Your task to perform on an android device: Open calendar and show me the first week of next month Image 0: 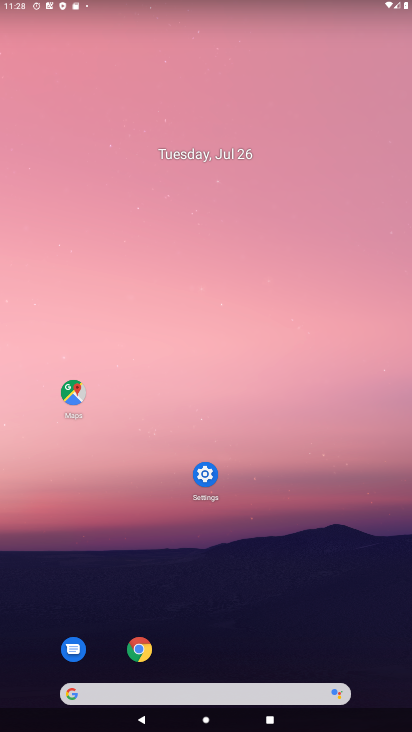
Step 0: drag from (216, 640) to (216, 139)
Your task to perform on an android device: Open calendar and show me the first week of next month Image 1: 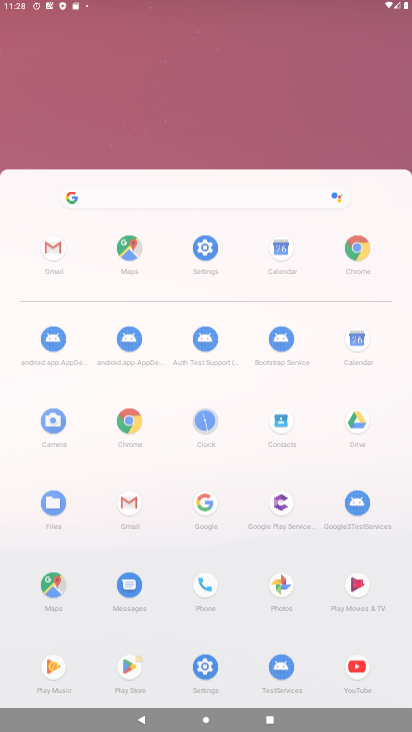
Step 1: drag from (306, 416) to (274, 211)
Your task to perform on an android device: Open calendar and show me the first week of next month Image 2: 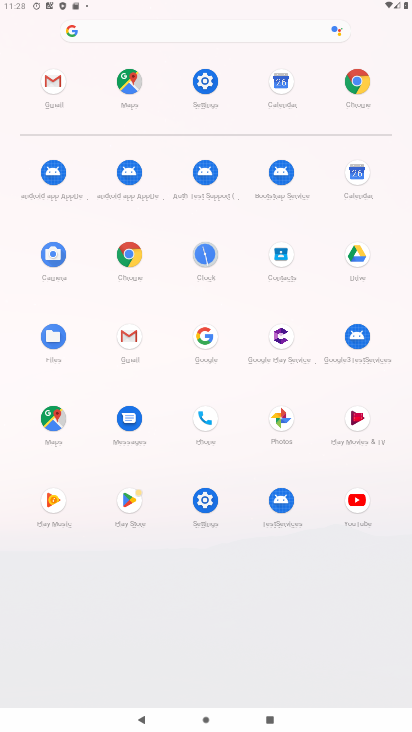
Step 2: click (356, 158)
Your task to perform on an android device: Open calendar and show me the first week of next month Image 3: 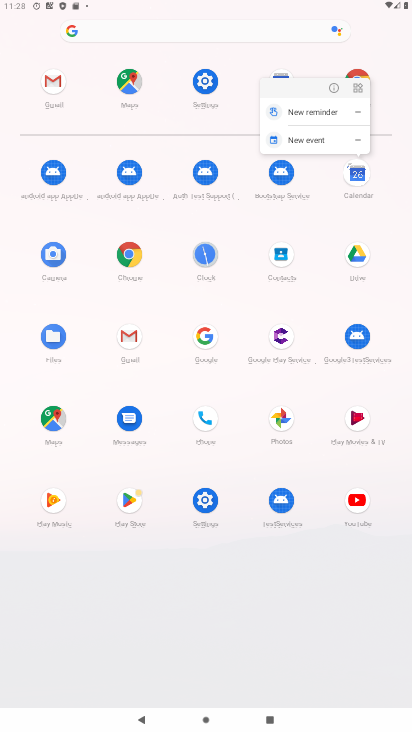
Step 3: click (362, 168)
Your task to perform on an android device: Open calendar and show me the first week of next month Image 4: 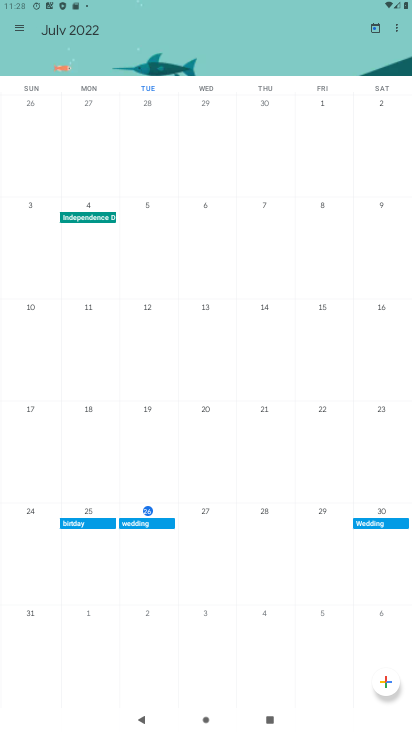
Step 4: drag from (307, 333) to (1, 305)
Your task to perform on an android device: Open calendar and show me the first week of next month Image 5: 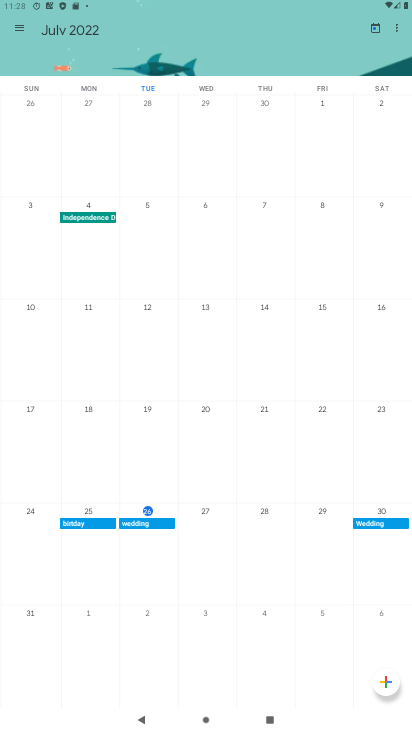
Step 5: drag from (271, 278) to (49, 227)
Your task to perform on an android device: Open calendar and show me the first week of next month Image 6: 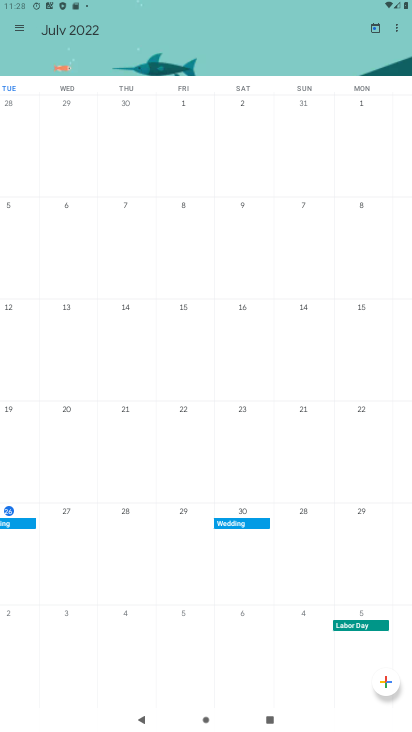
Step 6: click (24, 227)
Your task to perform on an android device: Open calendar and show me the first week of next month Image 7: 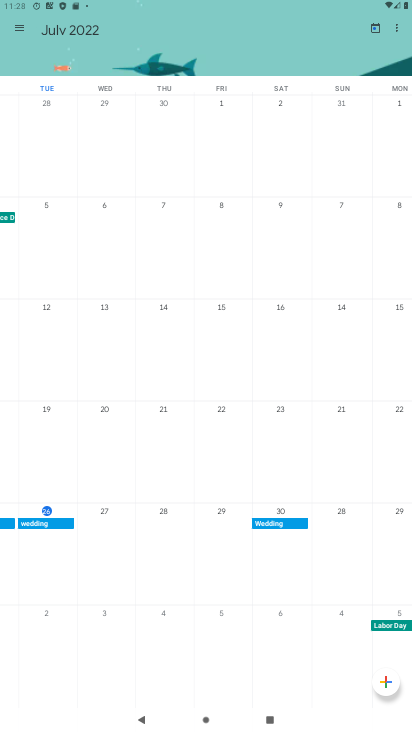
Step 7: drag from (243, 270) to (26, 215)
Your task to perform on an android device: Open calendar and show me the first week of next month Image 8: 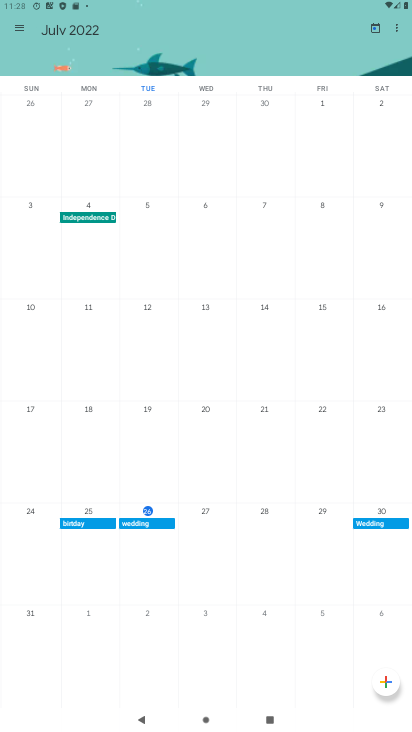
Step 8: drag from (181, 294) to (84, 284)
Your task to perform on an android device: Open calendar and show me the first week of next month Image 9: 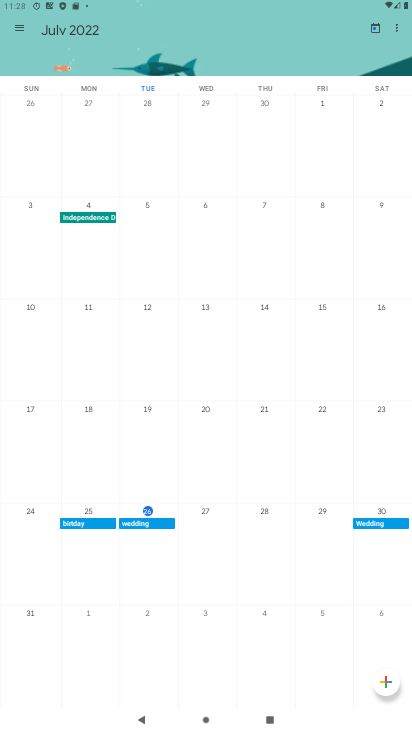
Step 9: drag from (107, 340) to (16, 273)
Your task to perform on an android device: Open calendar and show me the first week of next month Image 10: 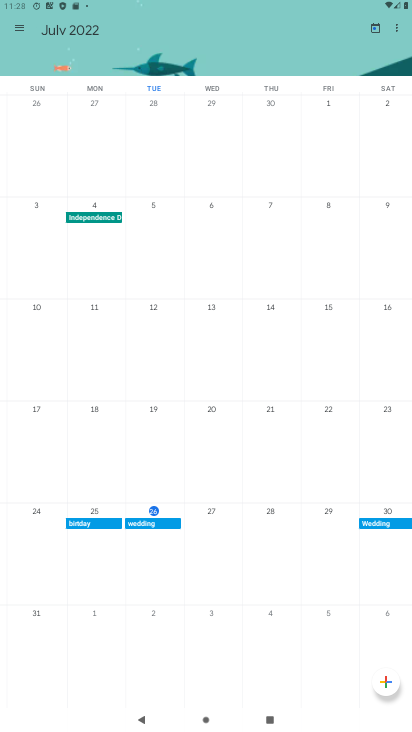
Step 10: drag from (326, 291) to (16, 271)
Your task to perform on an android device: Open calendar and show me the first week of next month Image 11: 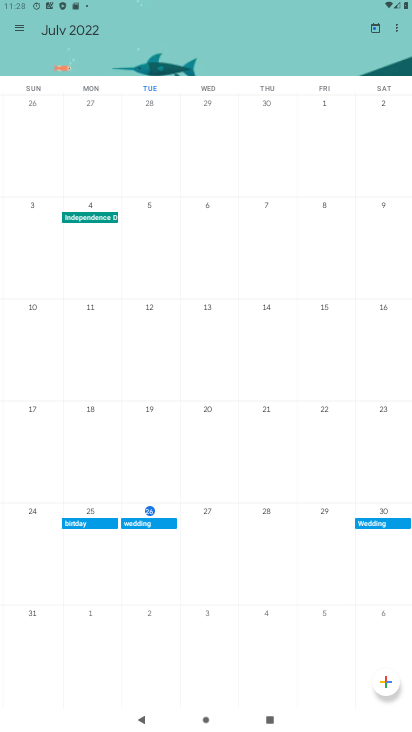
Step 11: drag from (263, 293) to (15, 243)
Your task to perform on an android device: Open calendar and show me the first week of next month Image 12: 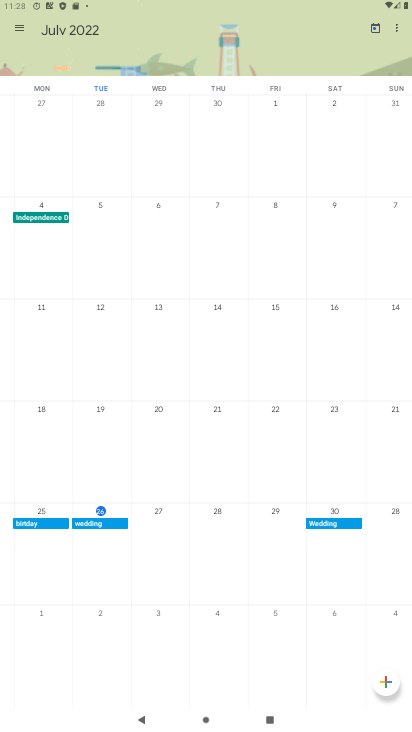
Step 12: drag from (384, 157) to (7, 185)
Your task to perform on an android device: Open calendar and show me the first week of next month Image 13: 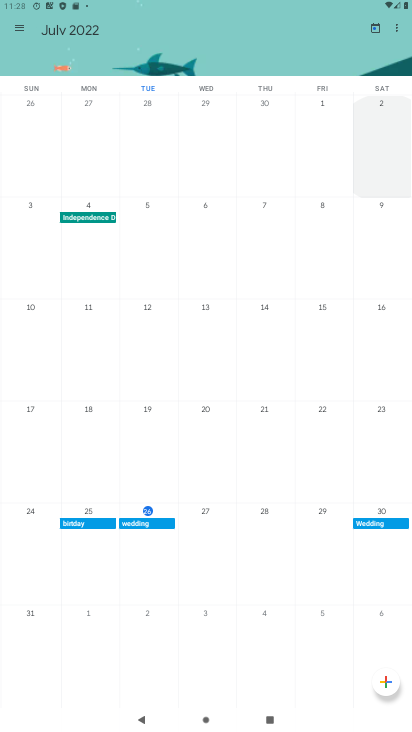
Step 13: drag from (386, 184) to (1, 216)
Your task to perform on an android device: Open calendar and show me the first week of next month Image 14: 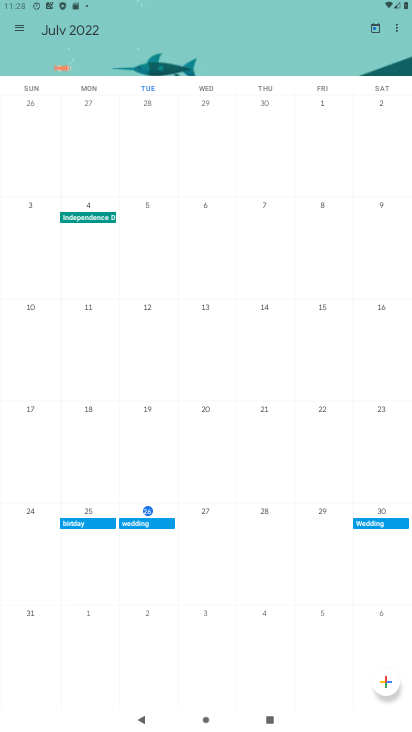
Step 14: drag from (260, 202) to (50, 301)
Your task to perform on an android device: Open calendar and show me the first week of next month Image 15: 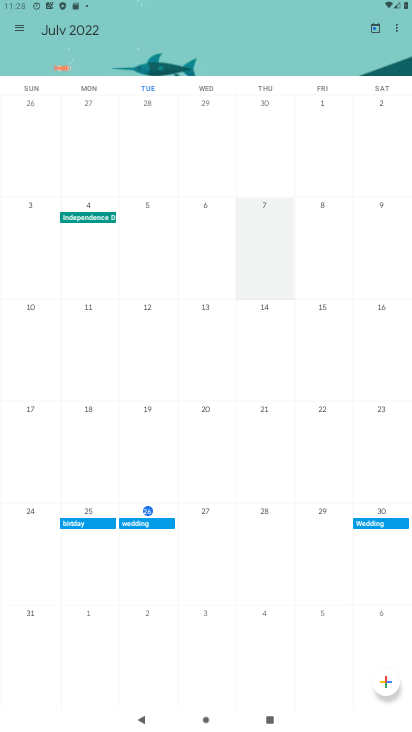
Step 15: drag from (288, 305) to (30, 341)
Your task to perform on an android device: Open calendar and show me the first week of next month Image 16: 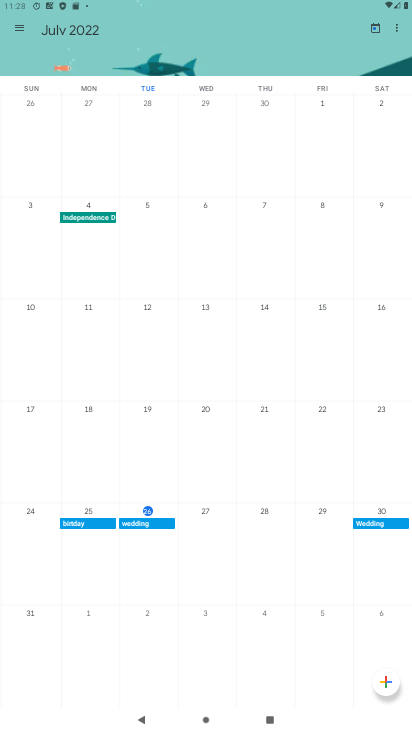
Step 16: drag from (386, 320) to (34, 338)
Your task to perform on an android device: Open calendar and show me the first week of next month Image 17: 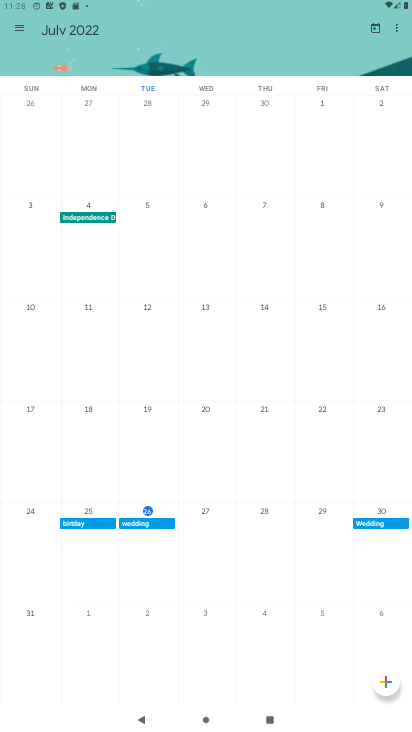
Step 17: drag from (266, 302) to (75, 371)
Your task to perform on an android device: Open calendar and show me the first week of next month Image 18: 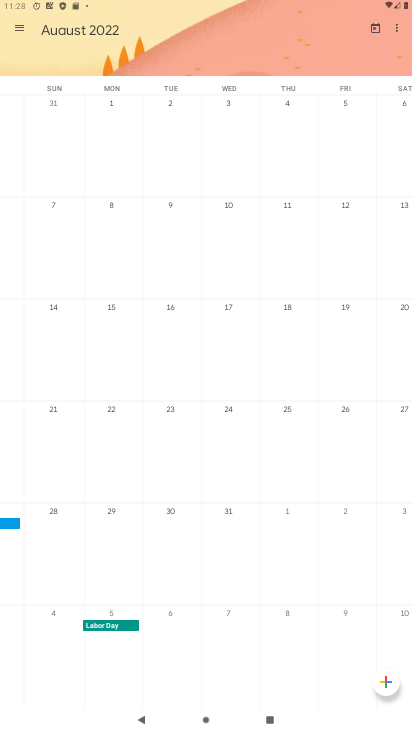
Step 18: drag from (311, 355) to (39, 406)
Your task to perform on an android device: Open calendar and show me the first week of next month Image 19: 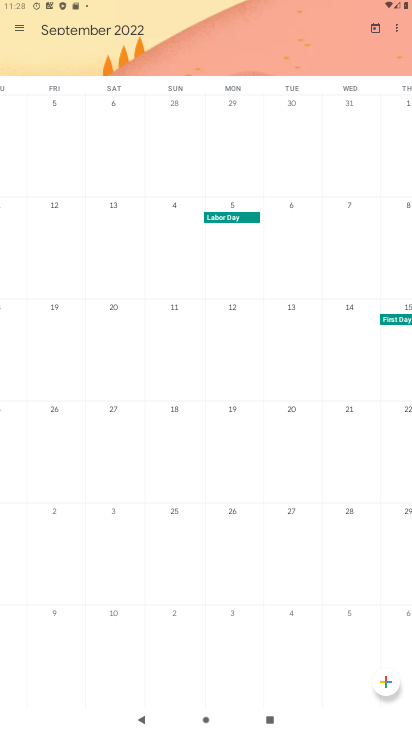
Step 19: drag from (159, 462) to (30, 384)
Your task to perform on an android device: Open calendar and show me the first week of next month Image 20: 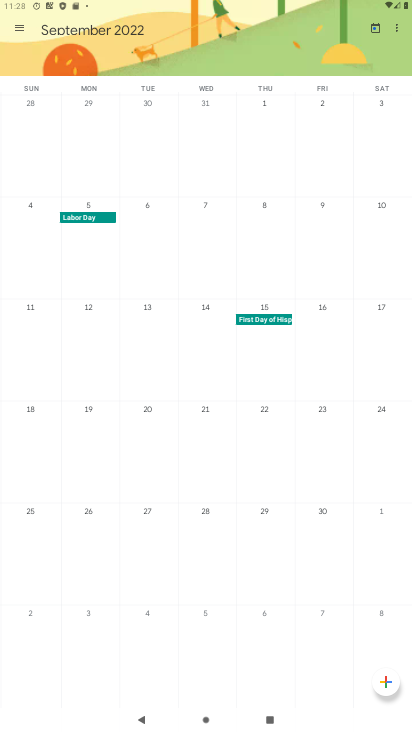
Step 20: drag from (94, 302) to (394, 367)
Your task to perform on an android device: Open calendar and show me the first week of next month Image 21: 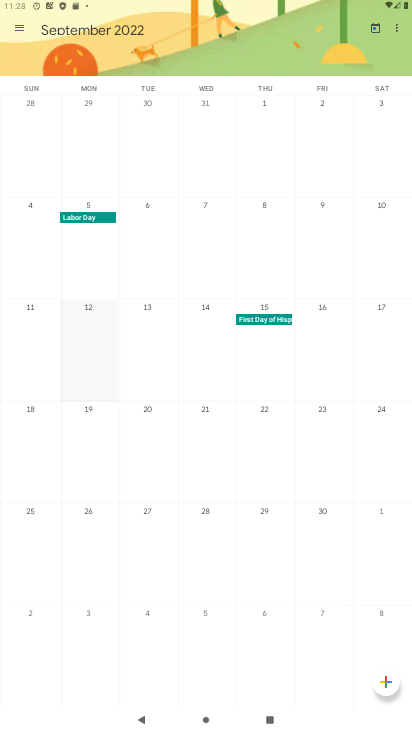
Step 21: drag from (143, 360) to (399, 375)
Your task to perform on an android device: Open calendar and show me the first week of next month Image 22: 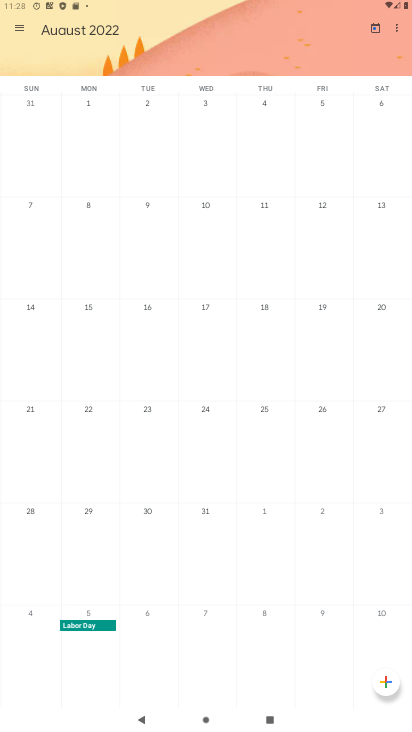
Step 22: drag from (123, 356) to (388, 408)
Your task to perform on an android device: Open calendar and show me the first week of next month Image 23: 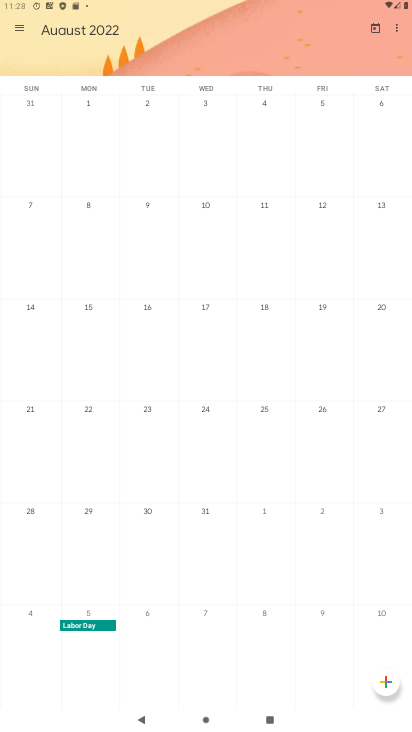
Step 23: click (91, 204)
Your task to perform on an android device: Open calendar and show me the first week of next month Image 24: 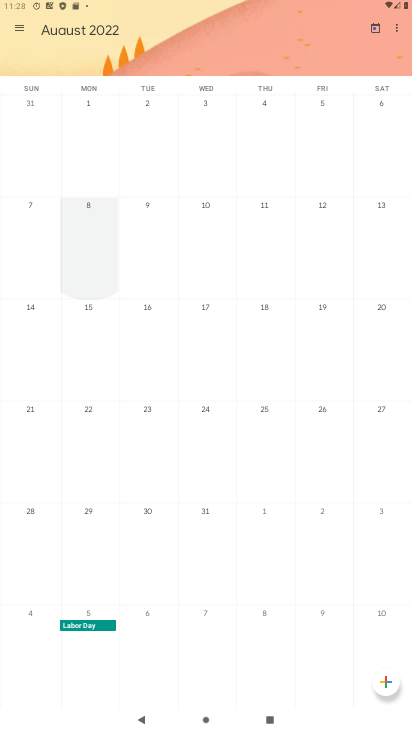
Step 24: click (94, 198)
Your task to perform on an android device: Open calendar and show me the first week of next month Image 25: 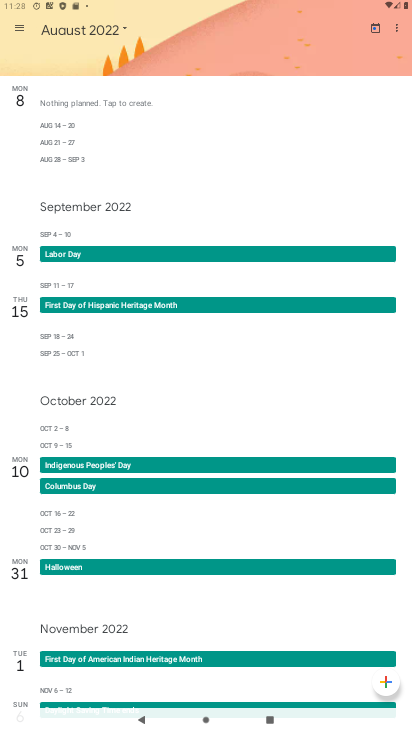
Step 25: task complete